Your task to perform on an android device: Turn off the flashlight Image 0: 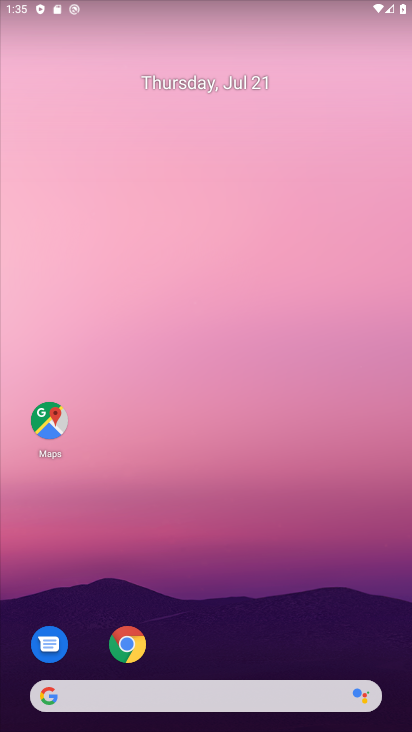
Step 0: drag from (223, 645) to (223, 109)
Your task to perform on an android device: Turn off the flashlight Image 1: 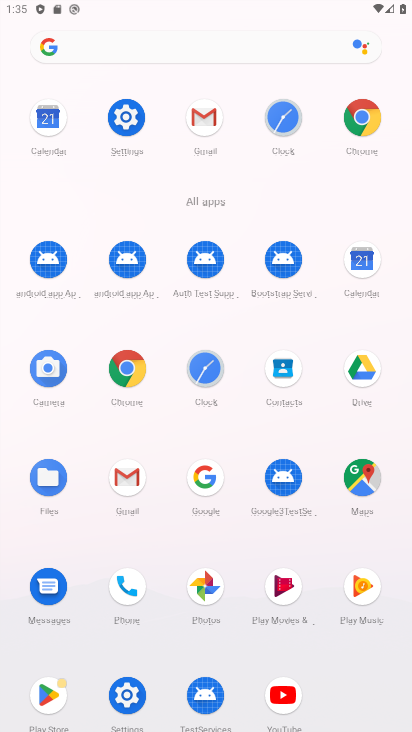
Step 1: click (129, 689)
Your task to perform on an android device: Turn off the flashlight Image 2: 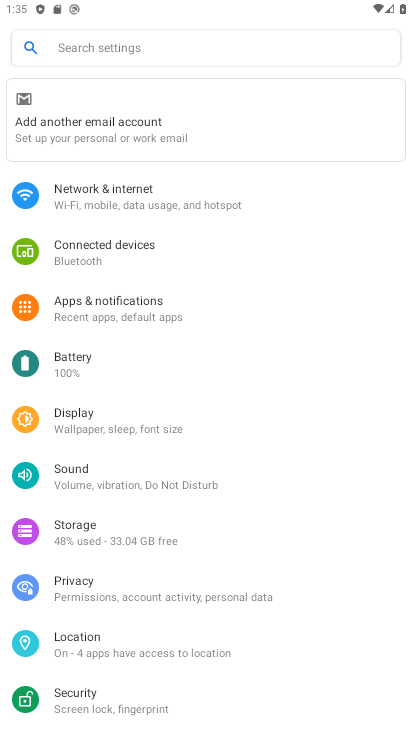
Step 2: task complete